Your task to perform on an android device: Open Maps and search for coffee Image 0: 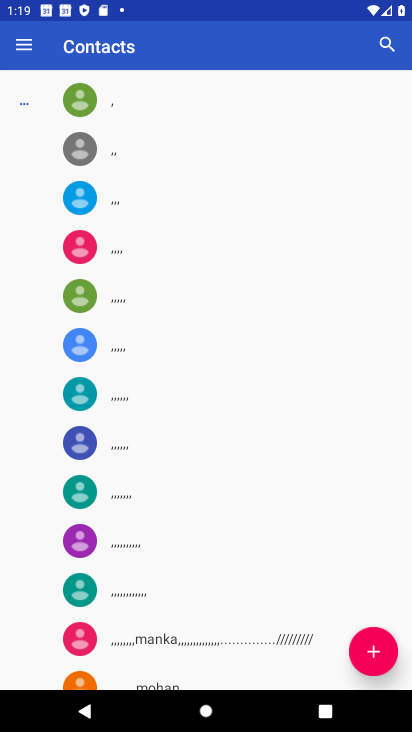
Step 0: press home button
Your task to perform on an android device: Open Maps and search for coffee Image 1: 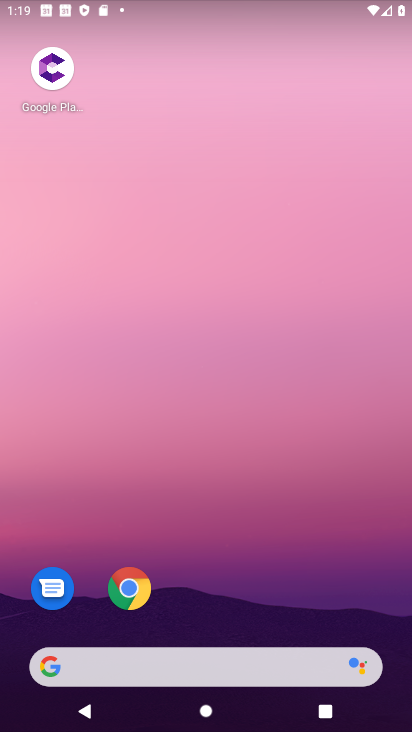
Step 1: drag from (243, 515) to (241, 122)
Your task to perform on an android device: Open Maps and search for coffee Image 2: 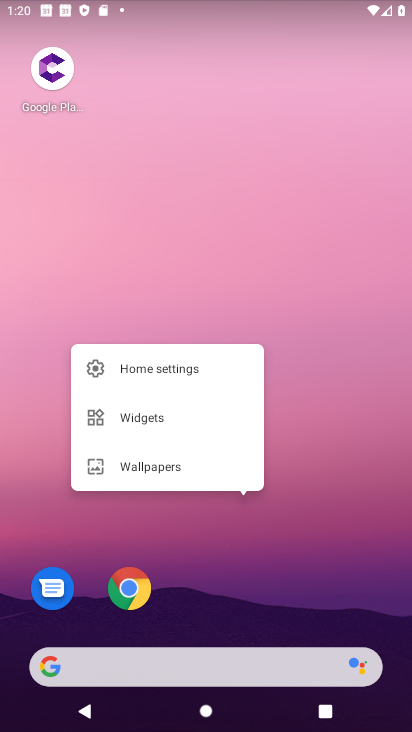
Step 2: click (241, 122)
Your task to perform on an android device: Open Maps and search for coffee Image 3: 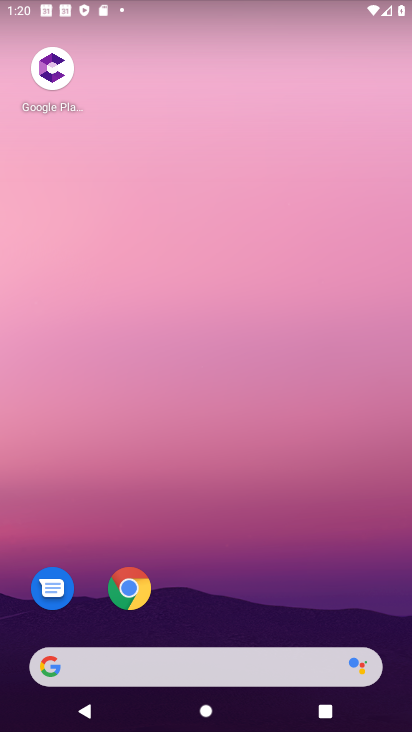
Step 3: drag from (247, 586) to (248, 27)
Your task to perform on an android device: Open Maps and search for coffee Image 4: 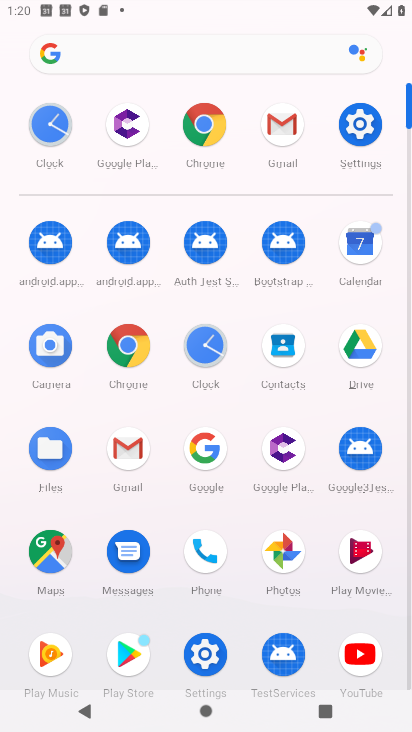
Step 4: click (44, 544)
Your task to perform on an android device: Open Maps and search for coffee Image 5: 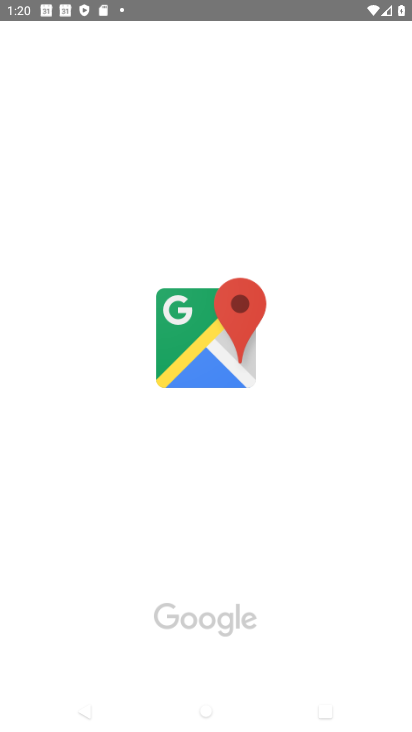
Step 5: task complete